Your task to perform on an android device: change the clock display to analog Image 0: 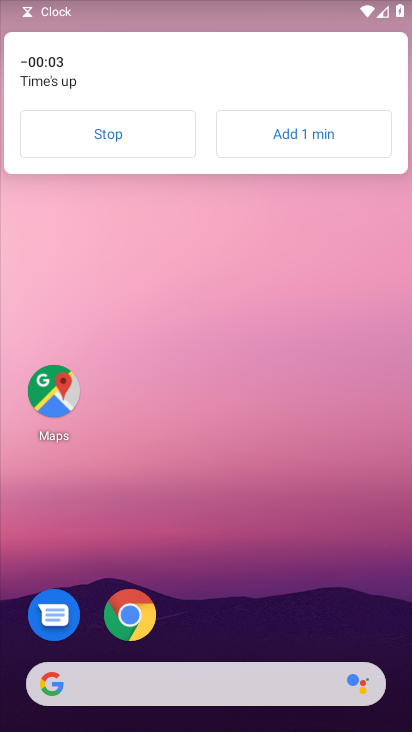
Step 0: drag from (181, 630) to (255, 26)
Your task to perform on an android device: change the clock display to analog Image 1: 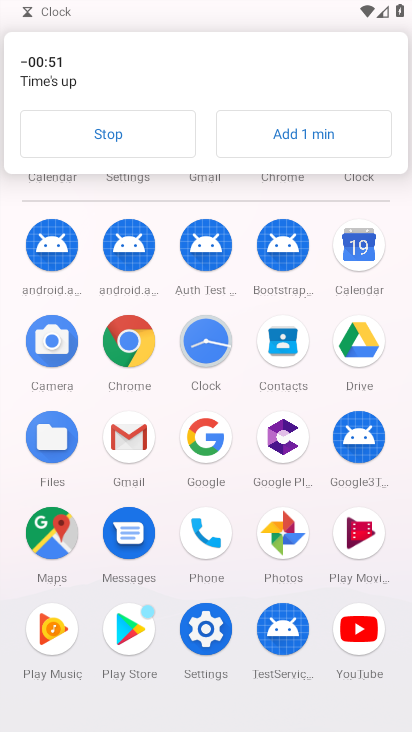
Step 1: click (223, 334)
Your task to perform on an android device: change the clock display to analog Image 2: 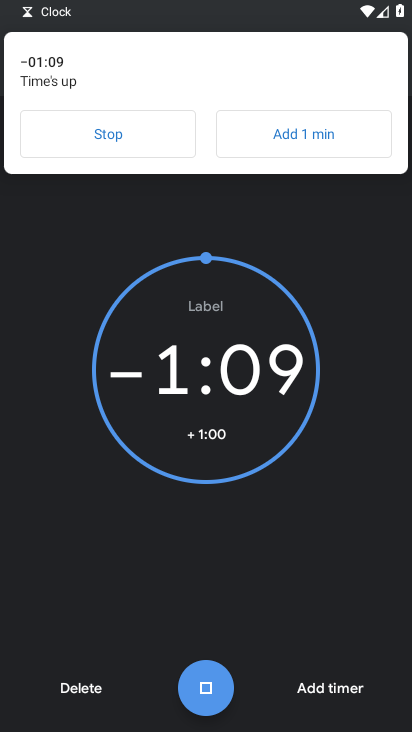
Step 2: click (170, 132)
Your task to perform on an android device: change the clock display to analog Image 3: 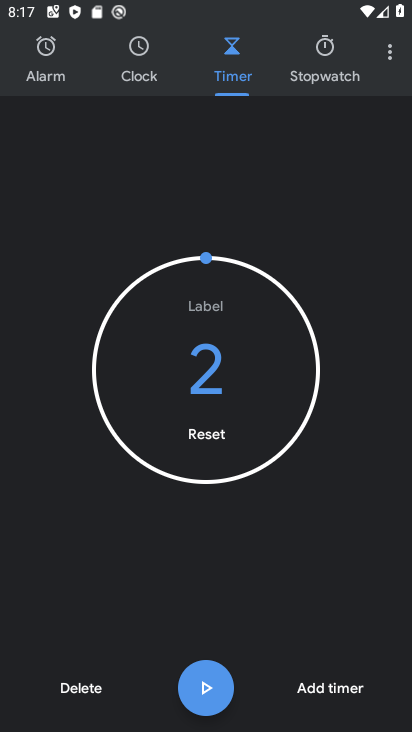
Step 3: click (390, 51)
Your task to perform on an android device: change the clock display to analog Image 4: 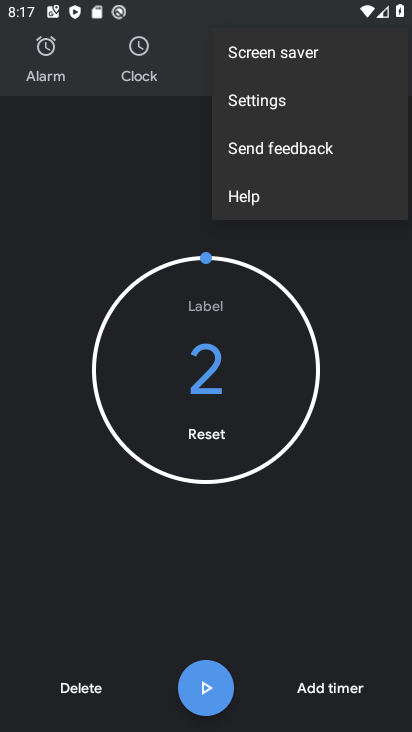
Step 4: click (288, 114)
Your task to perform on an android device: change the clock display to analog Image 5: 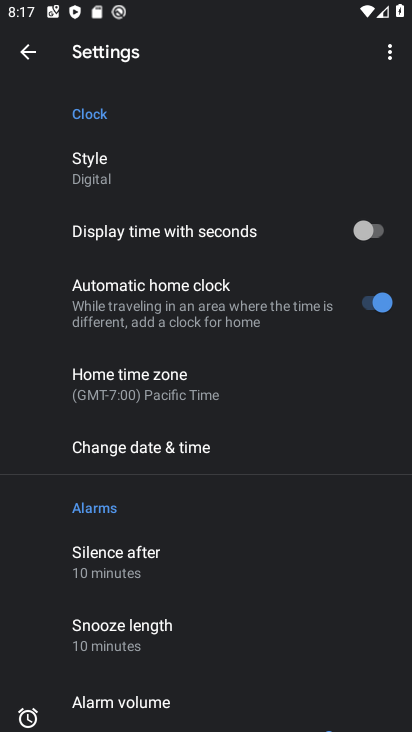
Step 5: click (205, 183)
Your task to perform on an android device: change the clock display to analog Image 6: 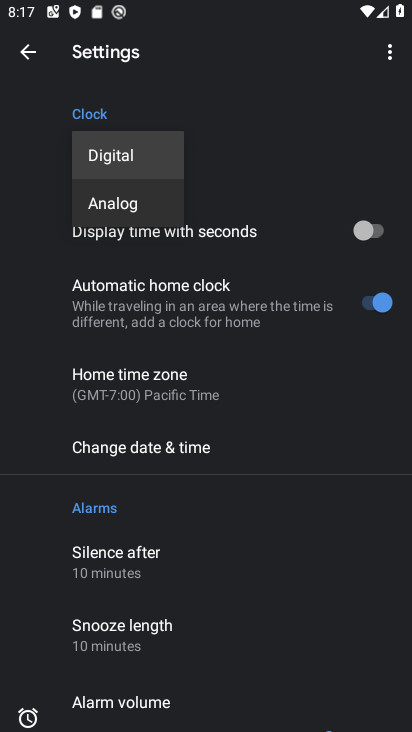
Step 6: click (139, 207)
Your task to perform on an android device: change the clock display to analog Image 7: 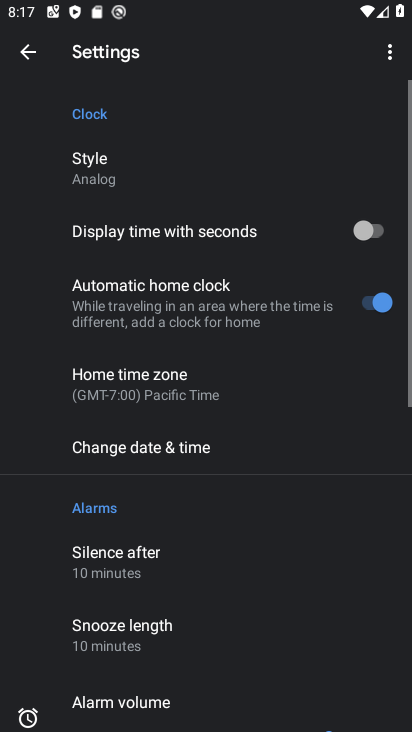
Step 7: task complete